Your task to perform on an android device: toggle wifi Image 0: 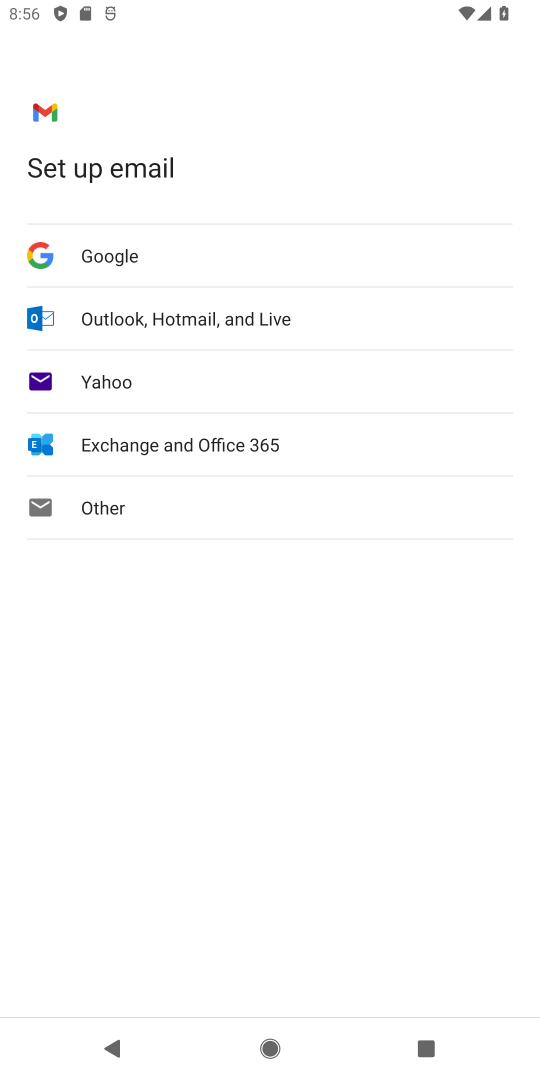
Step 0: press back button
Your task to perform on an android device: toggle wifi Image 1: 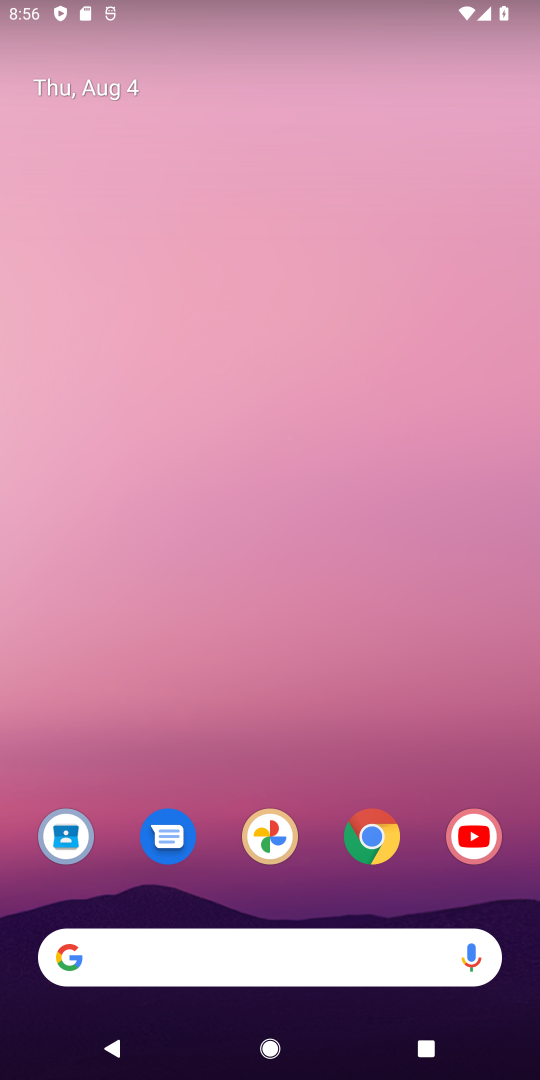
Step 1: drag from (102, 11) to (214, 860)
Your task to perform on an android device: toggle wifi Image 2: 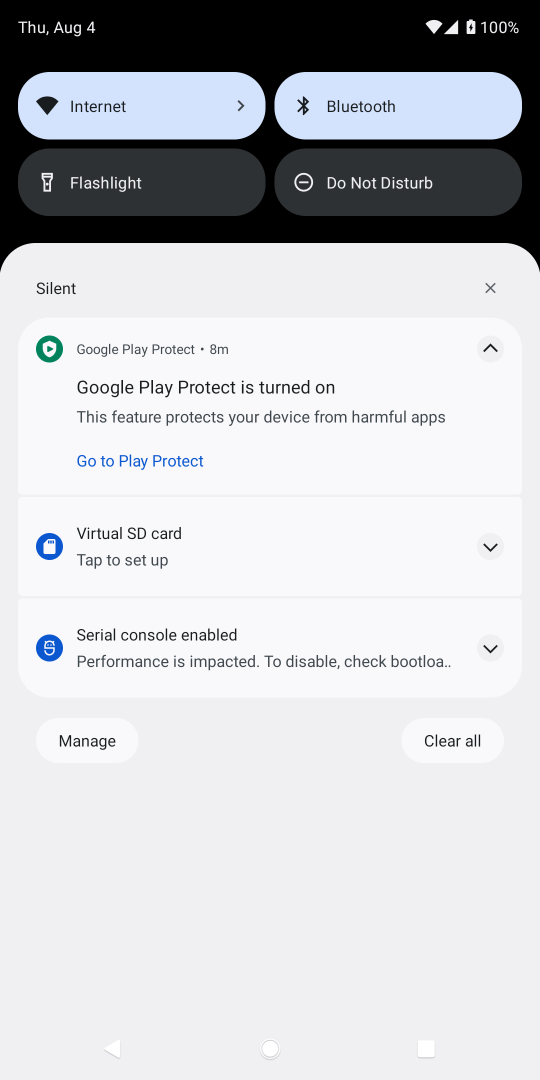
Step 2: click (111, 113)
Your task to perform on an android device: toggle wifi Image 3: 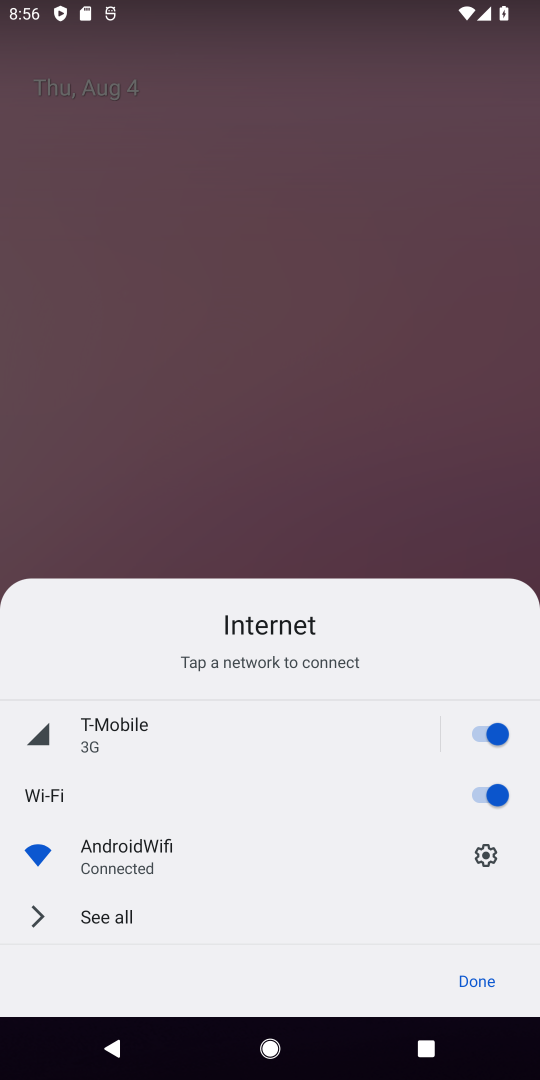
Step 3: task complete